Your task to perform on an android device: remove spam from my inbox in the gmail app Image 0: 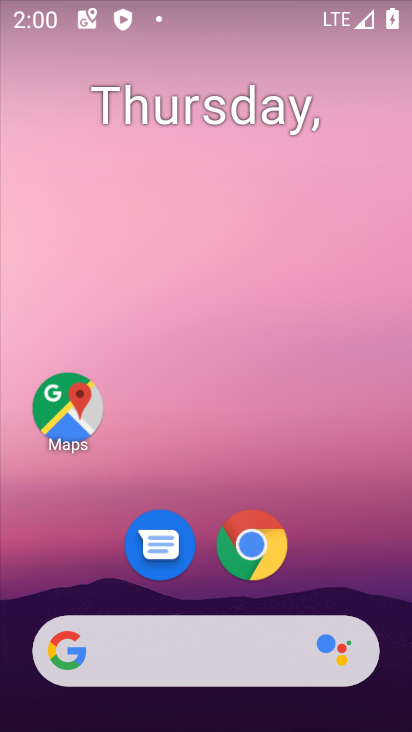
Step 0: drag from (158, 684) to (275, 84)
Your task to perform on an android device: remove spam from my inbox in the gmail app Image 1: 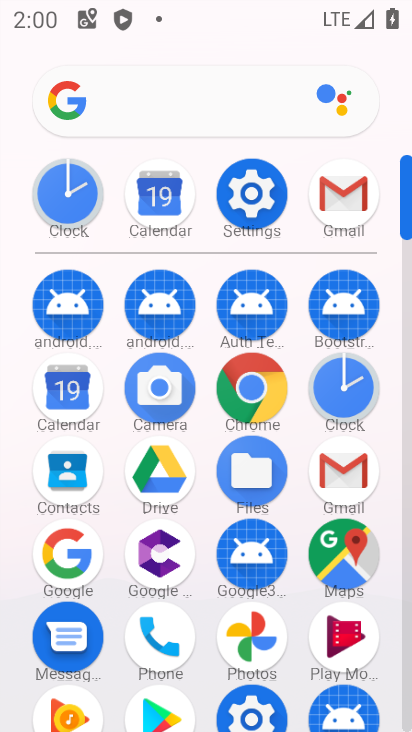
Step 1: click (347, 197)
Your task to perform on an android device: remove spam from my inbox in the gmail app Image 2: 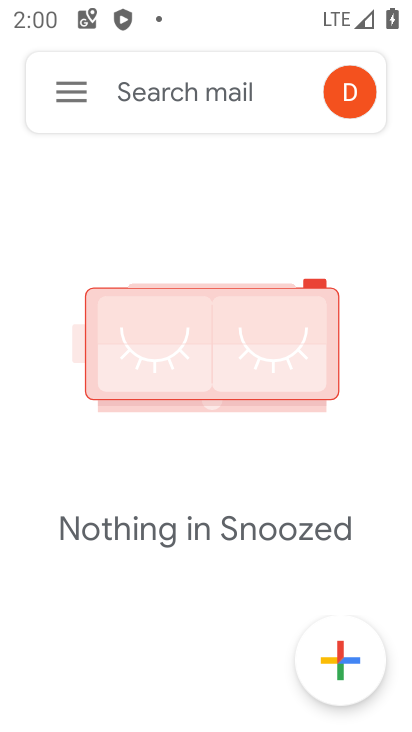
Step 2: click (80, 103)
Your task to perform on an android device: remove spam from my inbox in the gmail app Image 3: 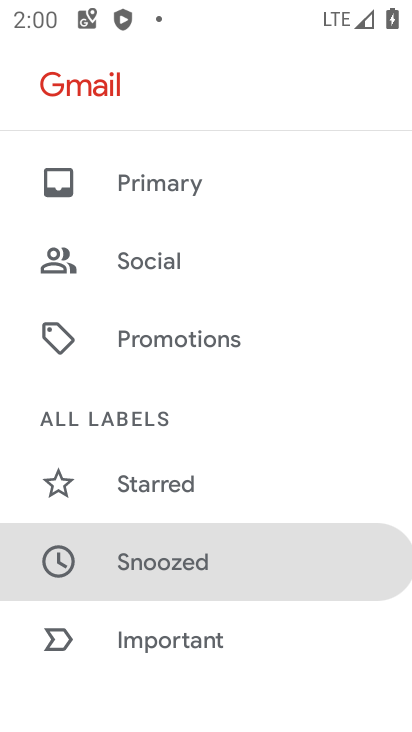
Step 3: drag from (249, 653) to (293, 208)
Your task to perform on an android device: remove spam from my inbox in the gmail app Image 4: 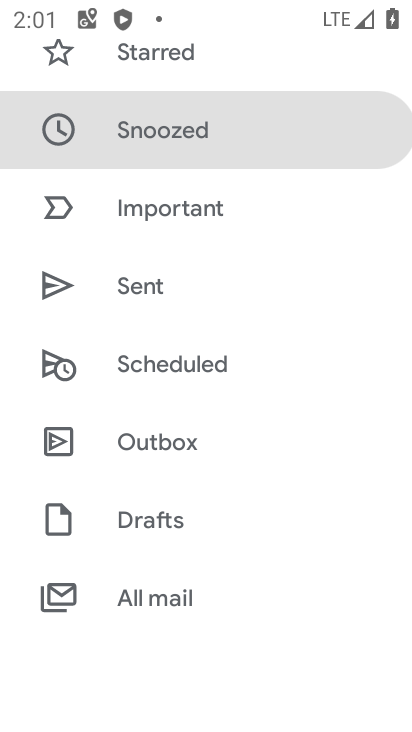
Step 4: drag from (219, 573) to (227, 138)
Your task to perform on an android device: remove spam from my inbox in the gmail app Image 5: 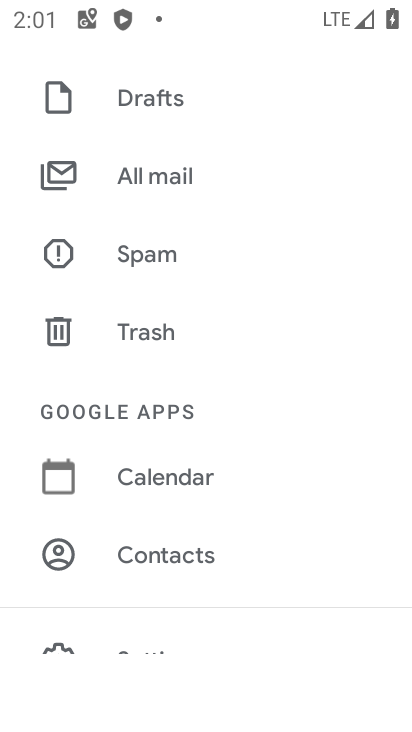
Step 5: click (221, 250)
Your task to perform on an android device: remove spam from my inbox in the gmail app Image 6: 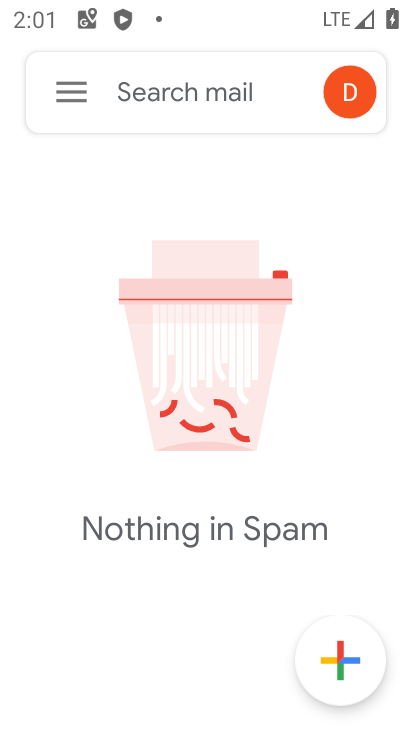
Step 6: task complete